Your task to perform on an android device: toggle wifi Image 0: 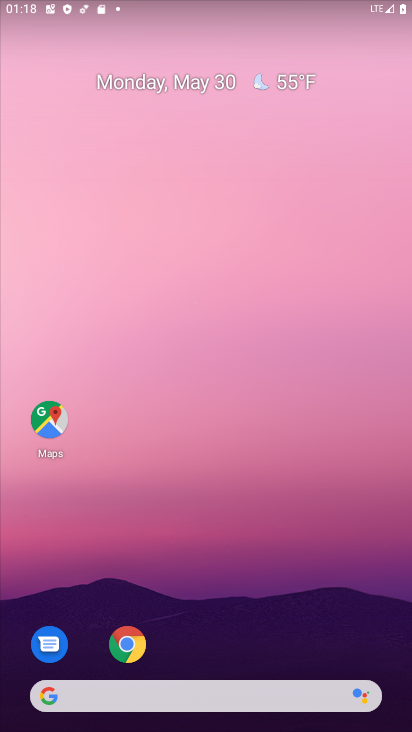
Step 0: drag from (341, 571) to (289, 176)
Your task to perform on an android device: toggle wifi Image 1: 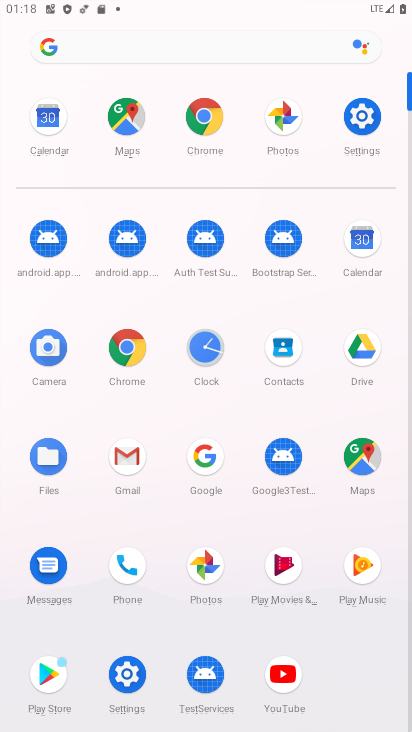
Step 1: click (124, 678)
Your task to perform on an android device: toggle wifi Image 2: 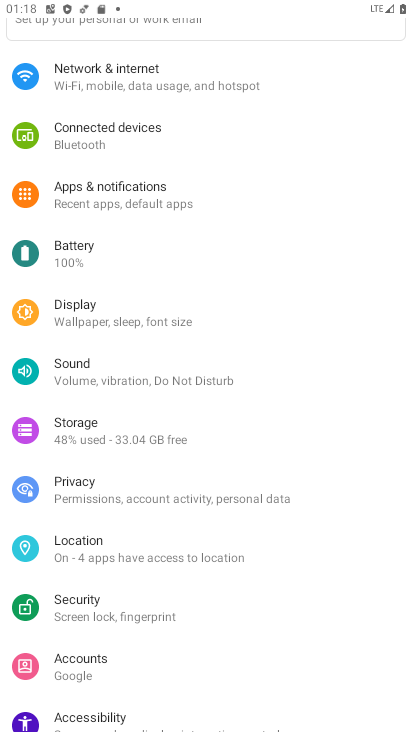
Step 2: click (202, 96)
Your task to perform on an android device: toggle wifi Image 3: 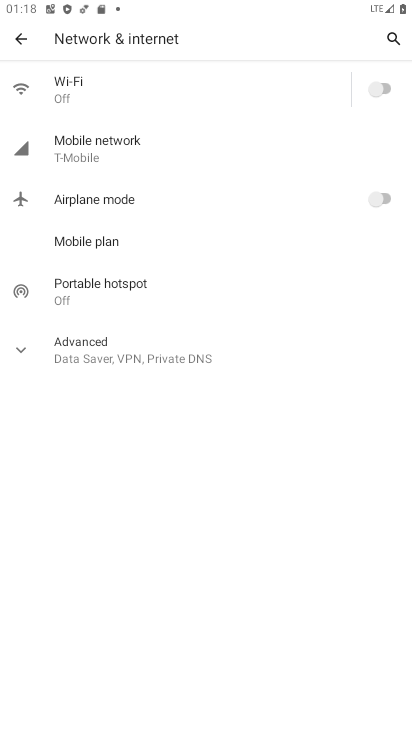
Step 3: click (202, 96)
Your task to perform on an android device: toggle wifi Image 4: 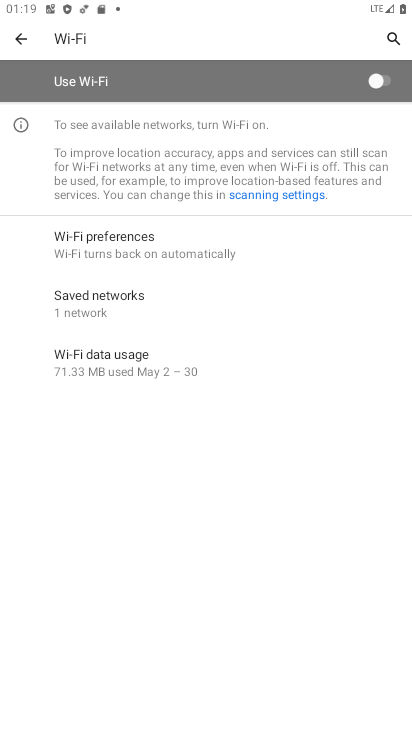
Step 4: click (389, 86)
Your task to perform on an android device: toggle wifi Image 5: 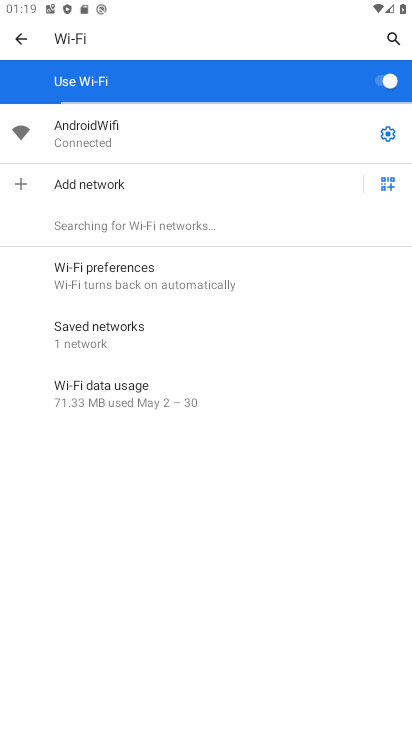
Step 5: task complete